Your task to perform on an android device: open a new tab in the chrome app Image 0: 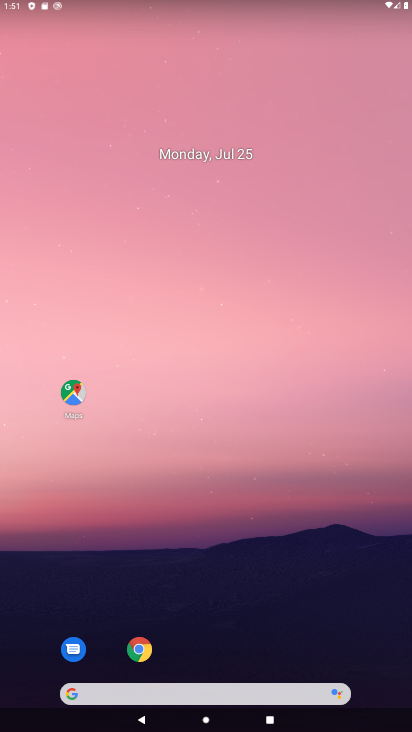
Step 0: click (137, 650)
Your task to perform on an android device: open a new tab in the chrome app Image 1: 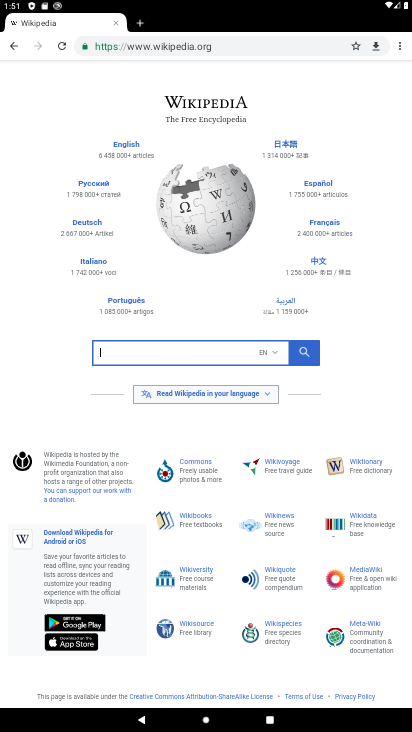
Step 1: click (399, 49)
Your task to perform on an android device: open a new tab in the chrome app Image 2: 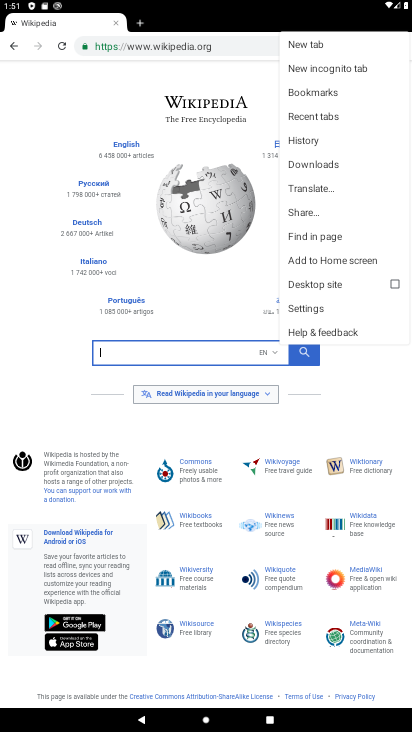
Step 2: click (304, 41)
Your task to perform on an android device: open a new tab in the chrome app Image 3: 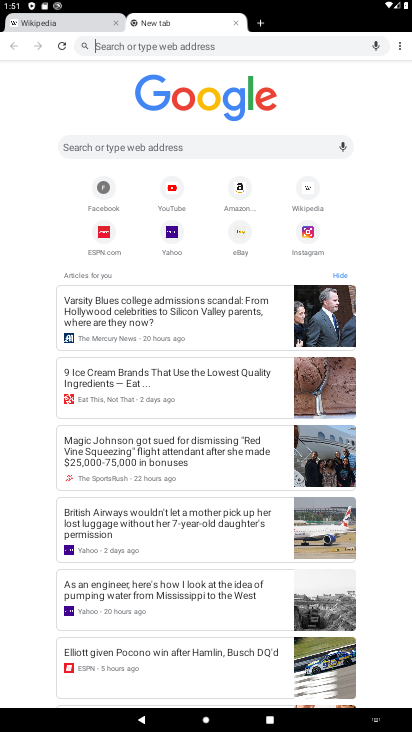
Step 3: task complete